Your task to perform on an android device: Show me the alarms in the clock app Image 0: 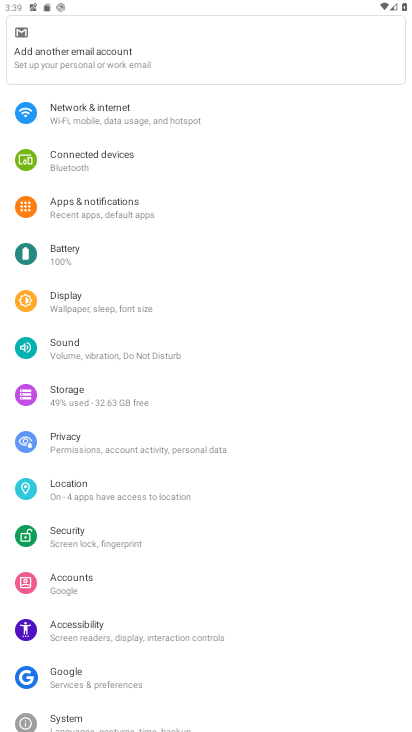
Step 0: press home button
Your task to perform on an android device: Show me the alarms in the clock app Image 1: 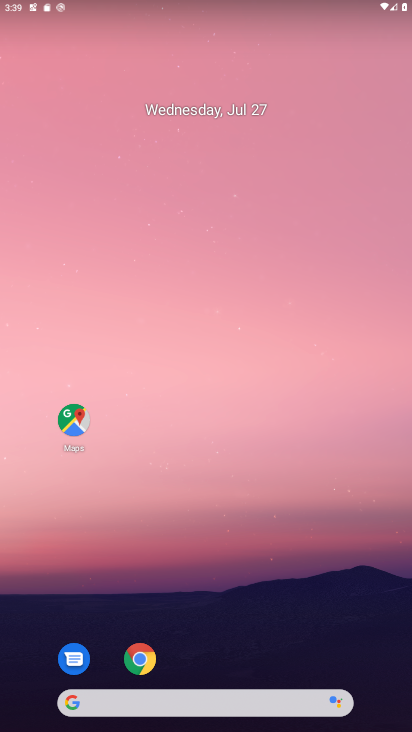
Step 1: drag from (261, 527) to (242, 45)
Your task to perform on an android device: Show me the alarms in the clock app Image 2: 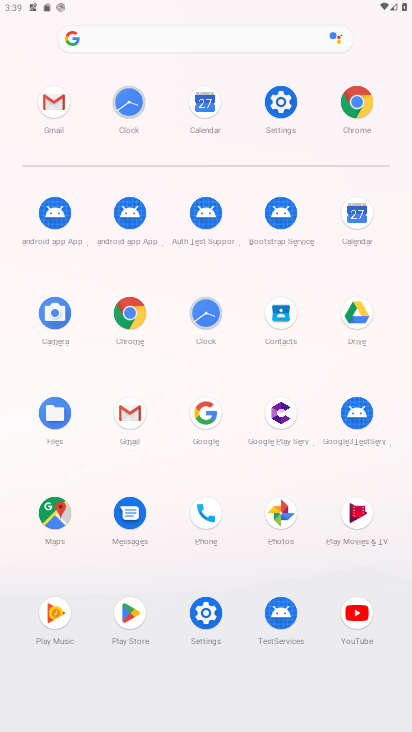
Step 2: click (132, 108)
Your task to perform on an android device: Show me the alarms in the clock app Image 3: 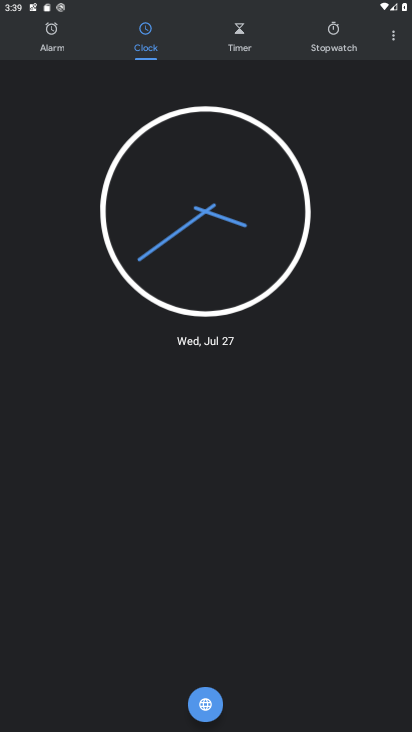
Step 3: click (46, 47)
Your task to perform on an android device: Show me the alarms in the clock app Image 4: 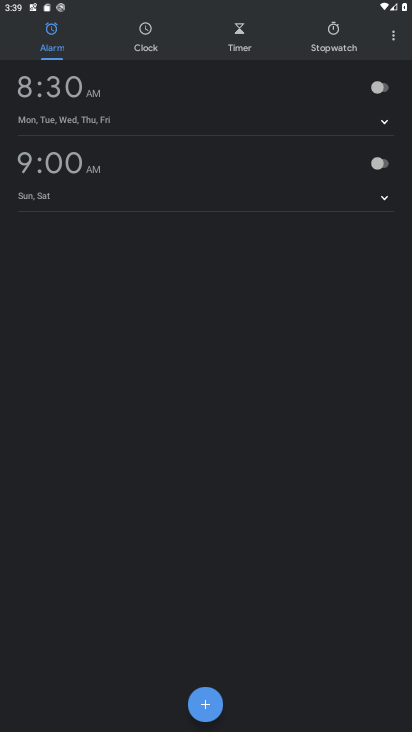
Step 4: click (93, 94)
Your task to perform on an android device: Show me the alarms in the clock app Image 5: 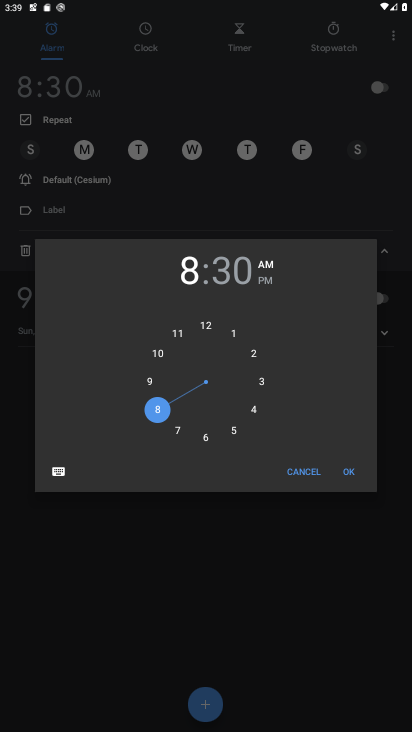
Step 5: task complete